Your task to perform on an android device: Open Google Chrome and open the bookmarks view Image 0: 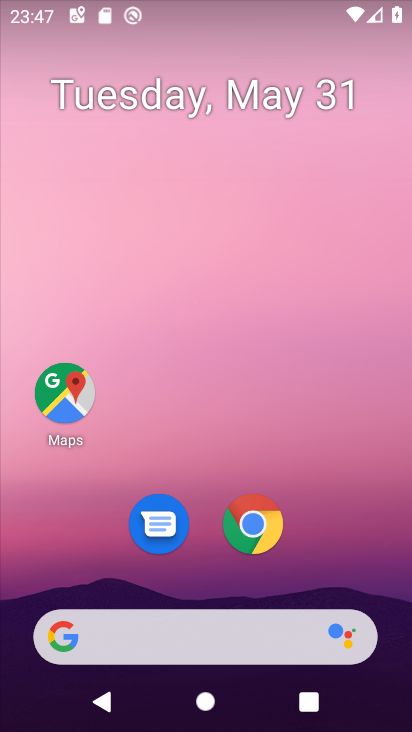
Step 0: click (257, 511)
Your task to perform on an android device: Open Google Chrome and open the bookmarks view Image 1: 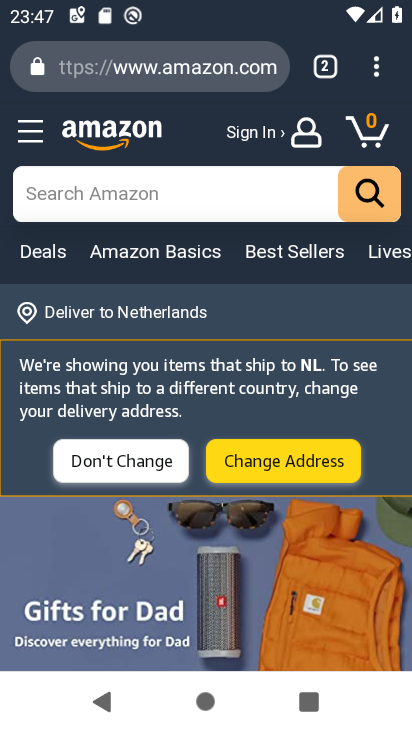
Step 1: click (376, 74)
Your task to perform on an android device: Open Google Chrome and open the bookmarks view Image 2: 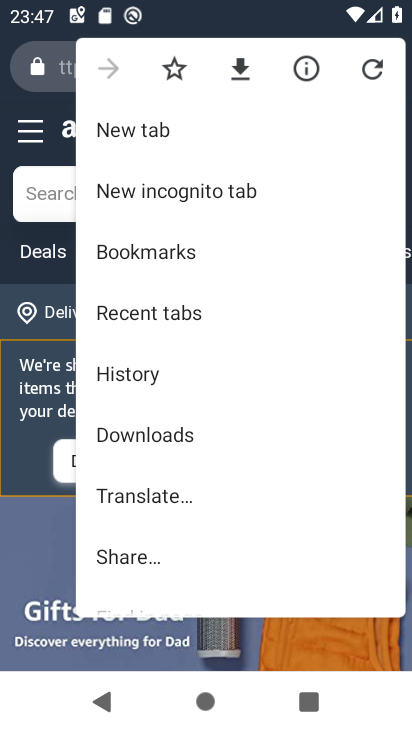
Step 2: click (188, 252)
Your task to perform on an android device: Open Google Chrome and open the bookmarks view Image 3: 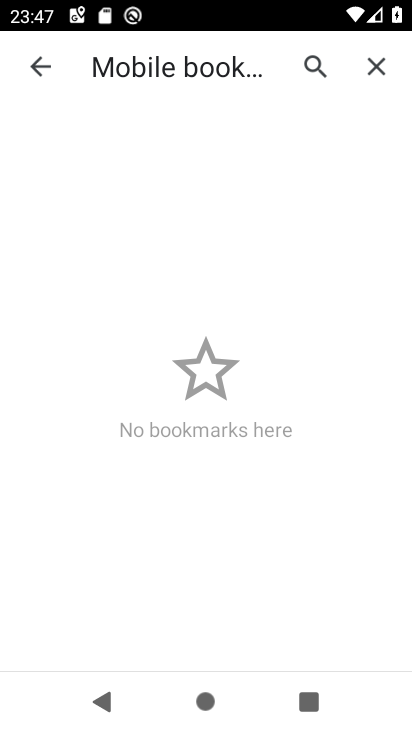
Step 3: task complete